Your task to perform on an android device: Add "panasonic triple a" to the cart on target.com Image 0: 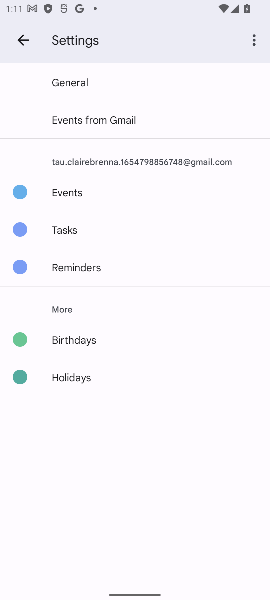
Step 0: press home button
Your task to perform on an android device: Add "panasonic triple a" to the cart on target.com Image 1: 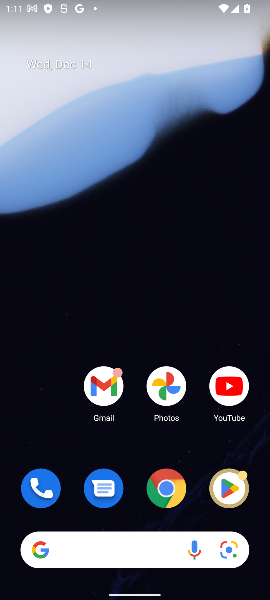
Step 1: drag from (137, 539) to (114, 168)
Your task to perform on an android device: Add "panasonic triple a" to the cart on target.com Image 2: 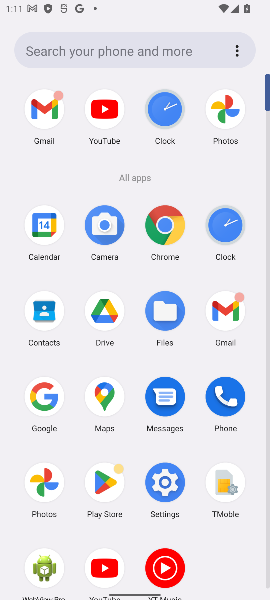
Step 2: click (44, 395)
Your task to perform on an android device: Add "panasonic triple a" to the cart on target.com Image 3: 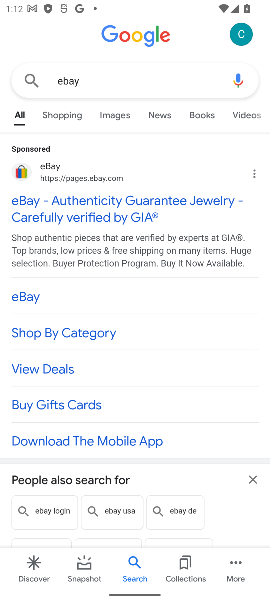
Step 3: click (106, 79)
Your task to perform on an android device: Add "panasonic triple a" to the cart on target.com Image 4: 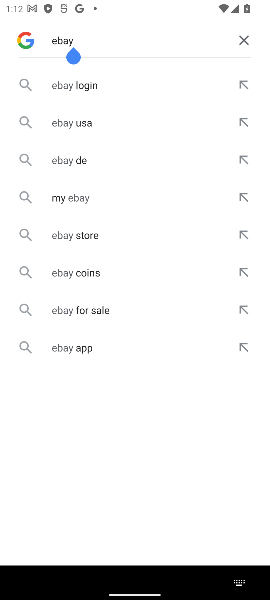
Step 4: click (241, 37)
Your task to perform on an android device: Add "panasonic triple a" to the cart on target.com Image 5: 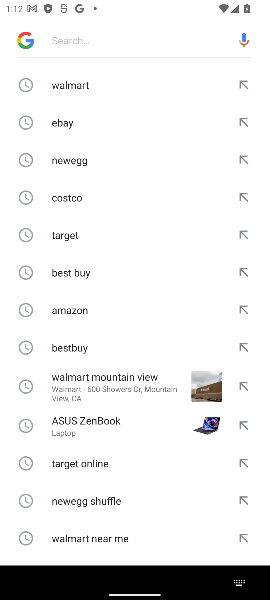
Step 5: click (64, 227)
Your task to perform on an android device: Add "panasonic triple a" to the cart on target.com Image 6: 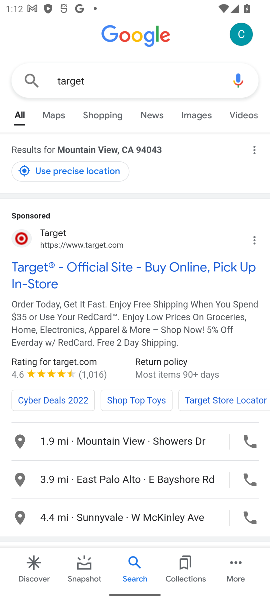
Step 6: click (69, 270)
Your task to perform on an android device: Add "panasonic triple a" to the cart on target.com Image 7: 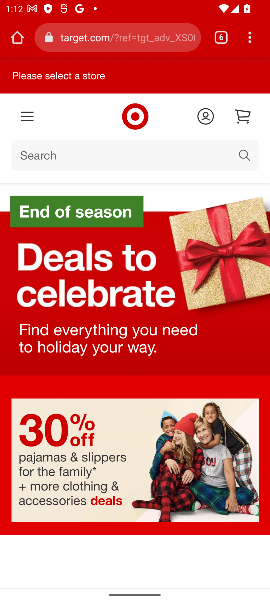
Step 7: click (64, 161)
Your task to perform on an android device: Add "panasonic triple a" to the cart on target.com Image 8: 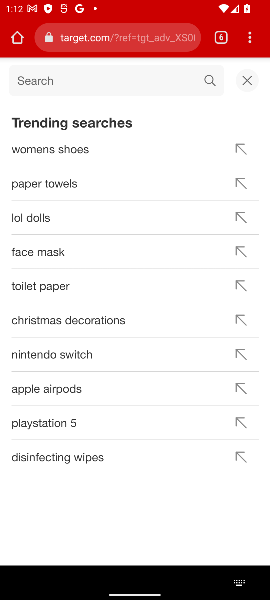
Step 8: click (212, 76)
Your task to perform on an android device: Add "panasonic triple a" to the cart on target.com Image 9: 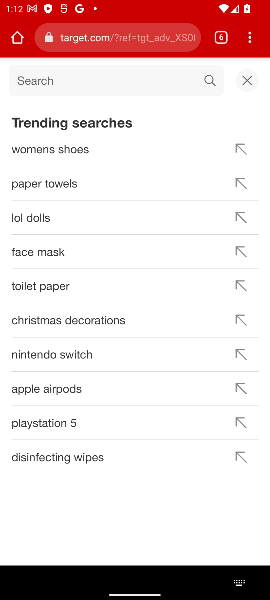
Step 9: type "panasonic triple a"
Your task to perform on an android device: Add "panasonic triple a" to the cart on target.com Image 10: 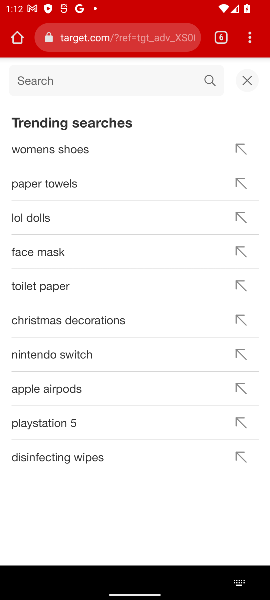
Step 10: click (212, 76)
Your task to perform on an android device: Add "panasonic triple a" to the cart on target.com Image 11: 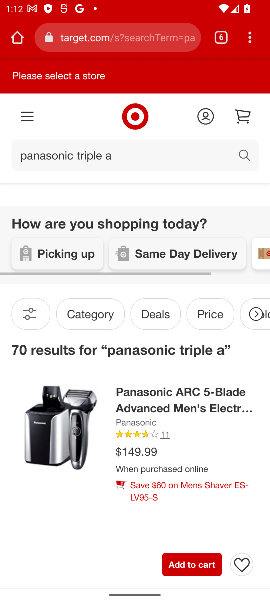
Step 11: click (201, 562)
Your task to perform on an android device: Add "panasonic triple a" to the cart on target.com Image 12: 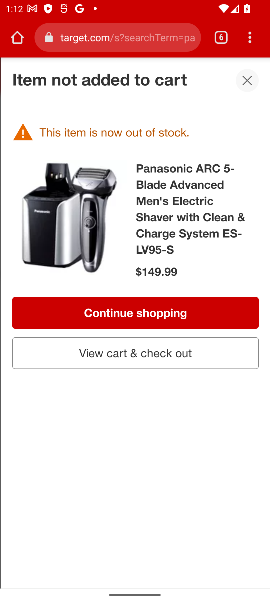
Step 12: click (142, 350)
Your task to perform on an android device: Add "panasonic triple a" to the cart on target.com Image 13: 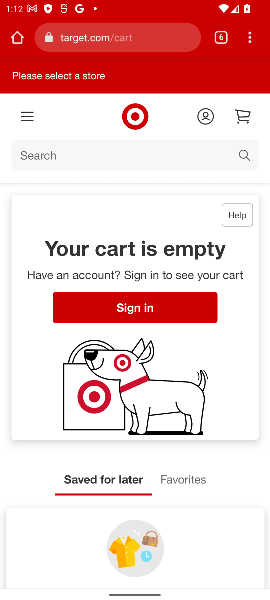
Step 13: task complete